Your task to perform on an android device: Go to network settings Image 0: 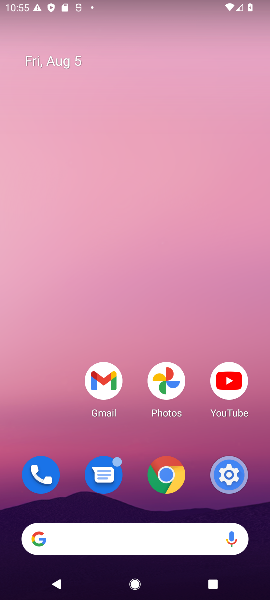
Step 0: click (225, 493)
Your task to perform on an android device: Go to network settings Image 1: 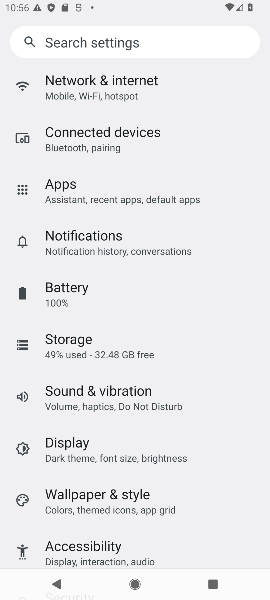
Step 1: click (67, 103)
Your task to perform on an android device: Go to network settings Image 2: 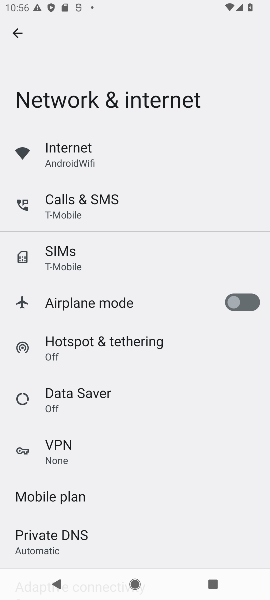
Step 2: click (90, 153)
Your task to perform on an android device: Go to network settings Image 3: 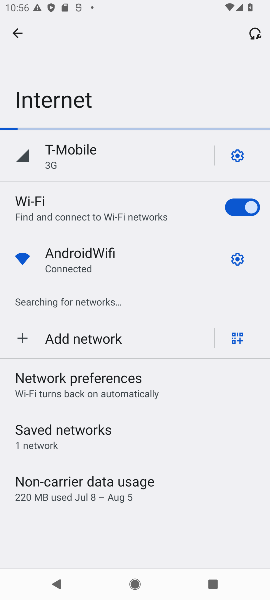
Step 3: task complete